Your task to perform on an android device: add a contact in the contacts app Image 0: 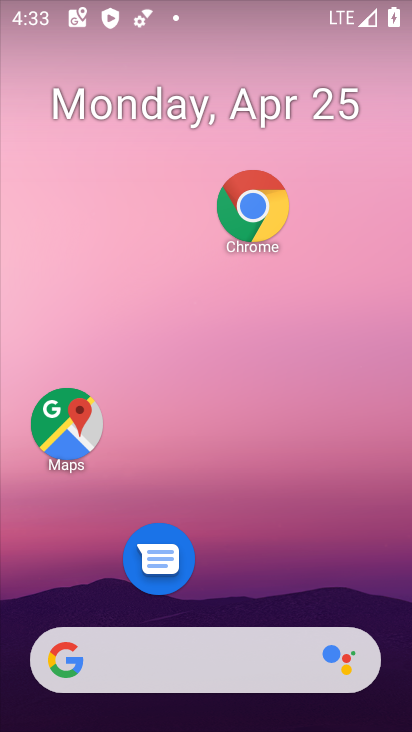
Step 0: drag from (240, 539) to (147, 82)
Your task to perform on an android device: add a contact in the contacts app Image 1: 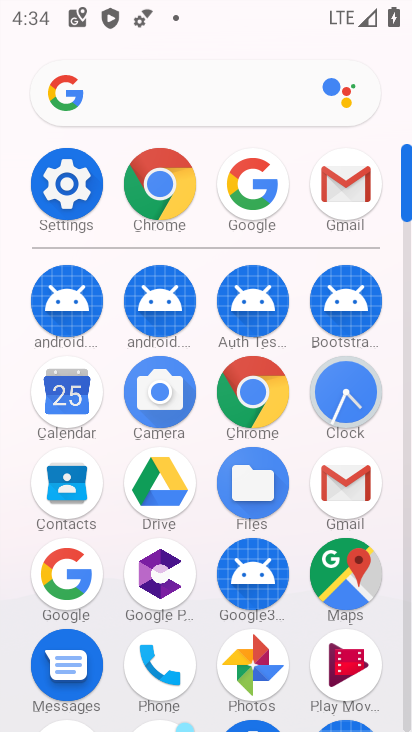
Step 1: click (68, 485)
Your task to perform on an android device: add a contact in the contacts app Image 2: 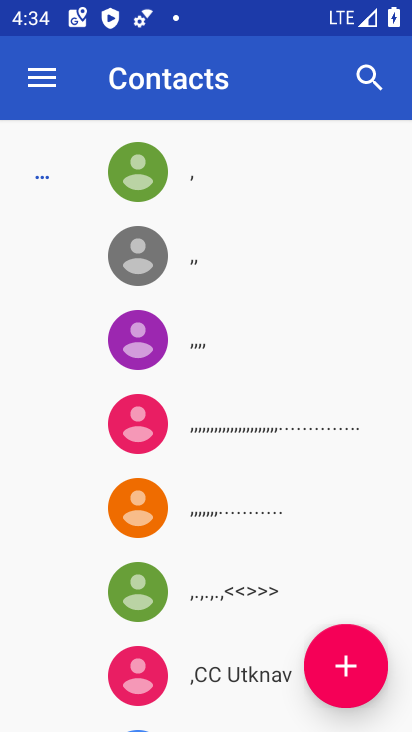
Step 2: click (346, 664)
Your task to perform on an android device: add a contact in the contacts app Image 3: 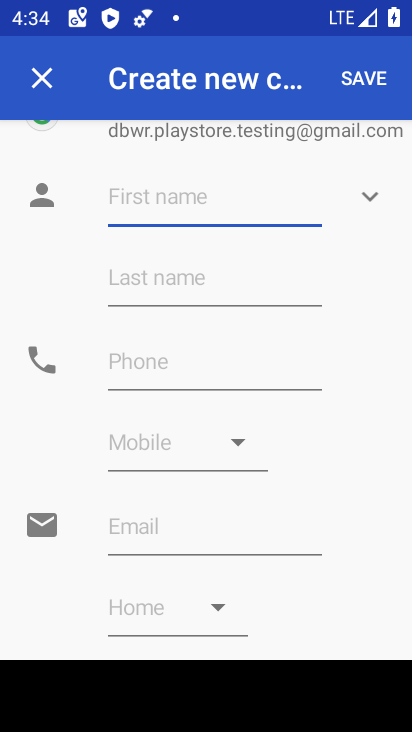
Step 3: click (232, 208)
Your task to perform on an android device: add a contact in the contacts app Image 4: 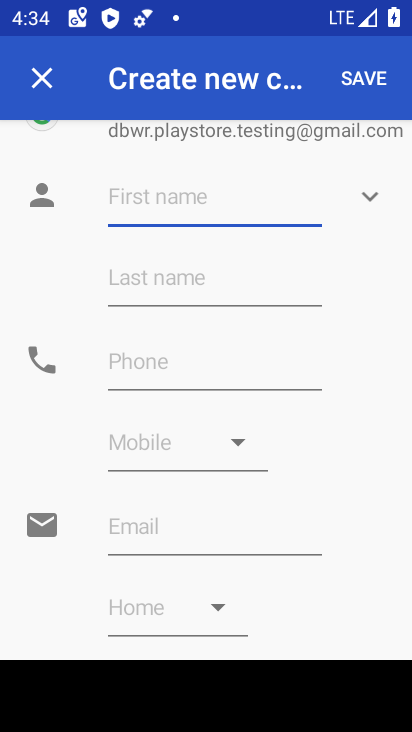
Step 4: type "Gaurishankar"
Your task to perform on an android device: add a contact in the contacts app Image 5: 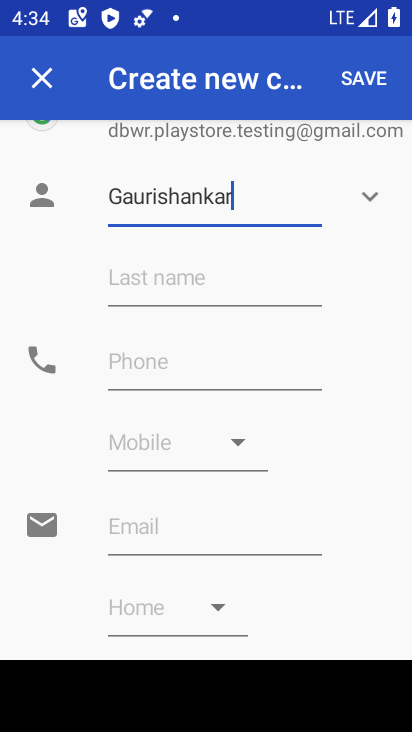
Step 5: click (268, 279)
Your task to perform on an android device: add a contact in the contacts app Image 6: 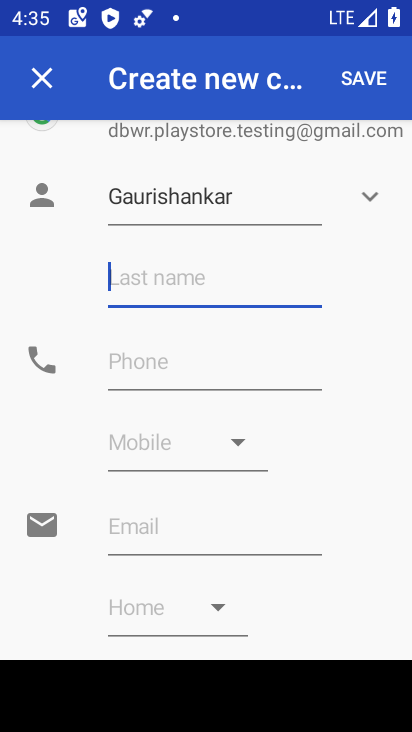
Step 6: type "Shukla"
Your task to perform on an android device: add a contact in the contacts app Image 7: 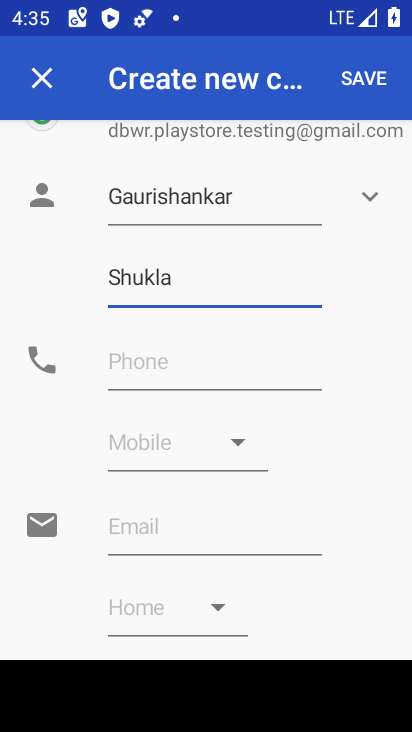
Step 7: click (170, 376)
Your task to perform on an android device: add a contact in the contacts app Image 8: 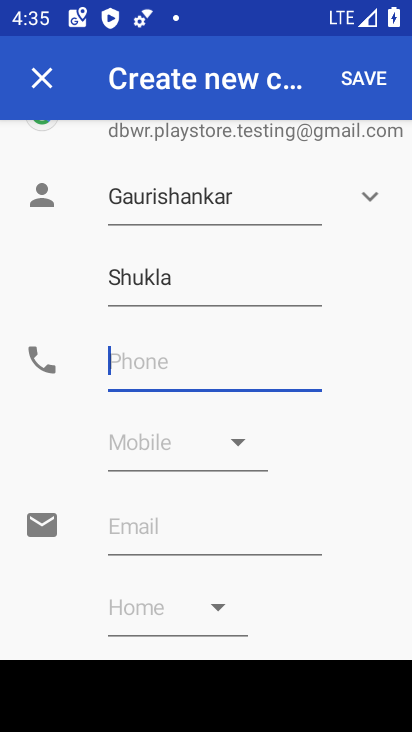
Step 8: type "09988776655"
Your task to perform on an android device: add a contact in the contacts app Image 9: 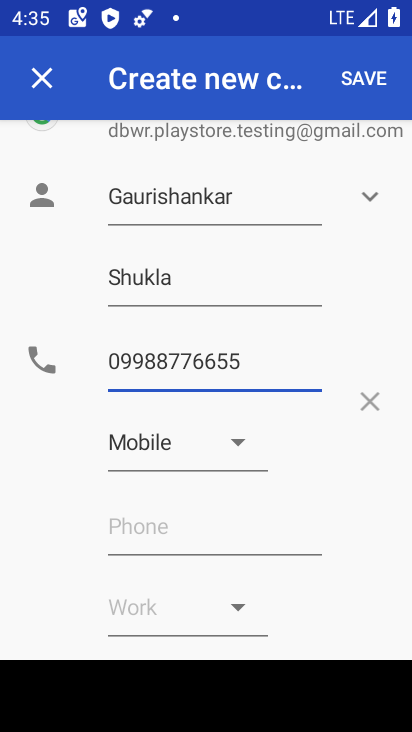
Step 9: click (366, 78)
Your task to perform on an android device: add a contact in the contacts app Image 10: 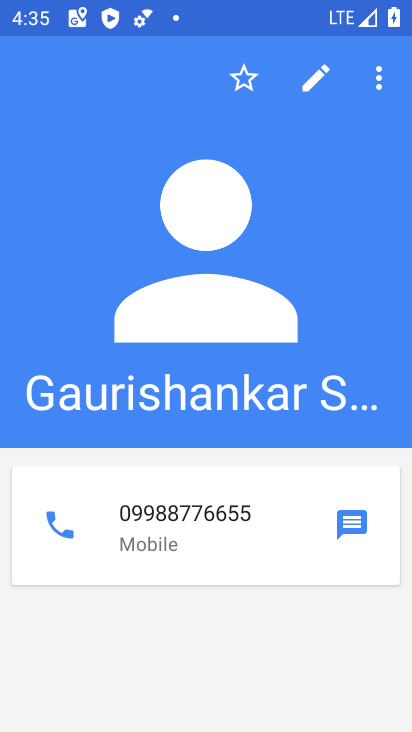
Step 10: task complete